Your task to perform on an android device: Go to privacy settings Image 0: 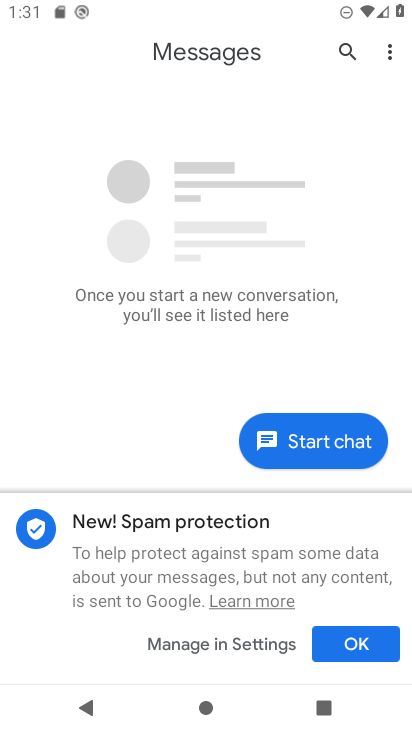
Step 0: press home button
Your task to perform on an android device: Go to privacy settings Image 1: 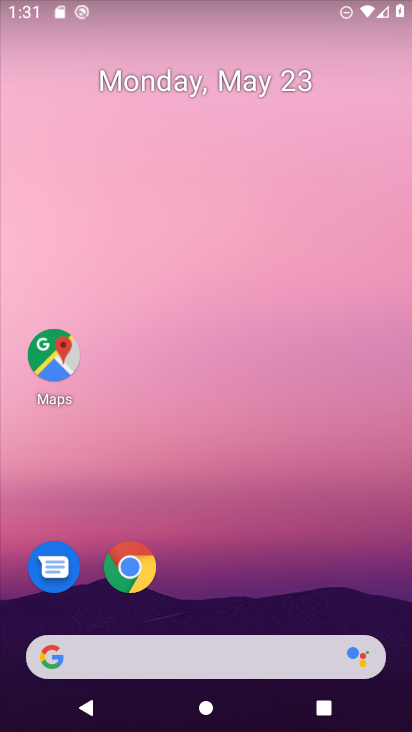
Step 1: drag from (302, 552) to (309, 2)
Your task to perform on an android device: Go to privacy settings Image 2: 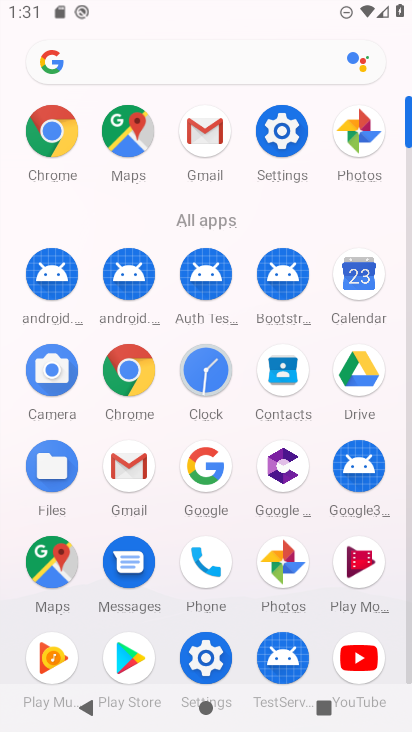
Step 2: click (211, 656)
Your task to perform on an android device: Go to privacy settings Image 3: 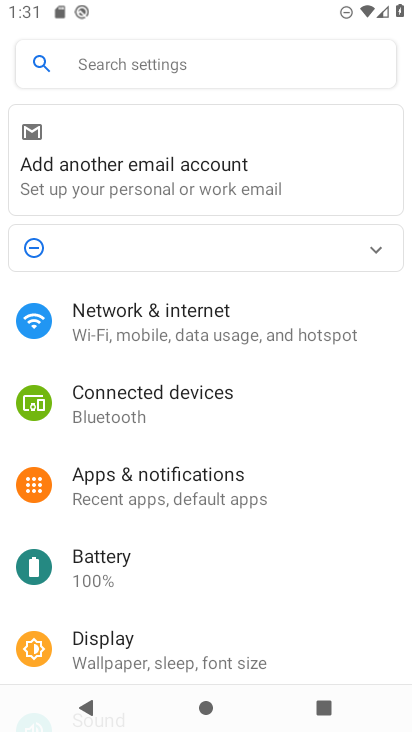
Step 3: drag from (175, 571) to (196, 92)
Your task to perform on an android device: Go to privacy settings Image 4: 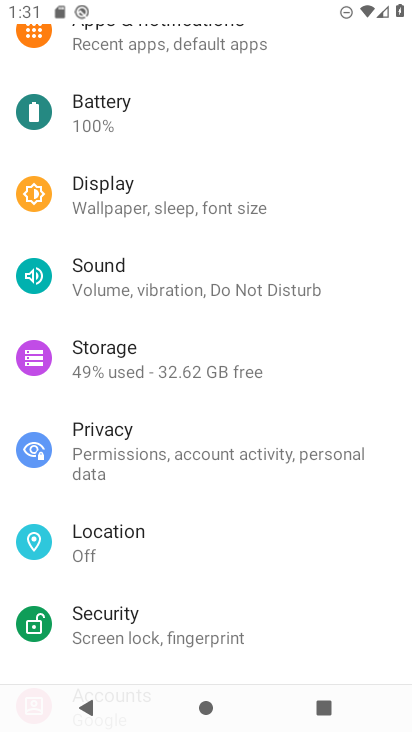
Step 4: click (113, 451)
Your task to perform on an android device: Go to privacy settings Image 5: 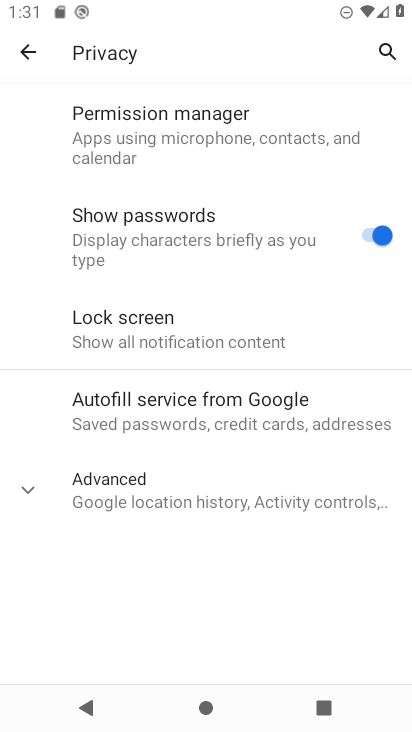
Step 5: task complete